Your task to perform on an android device: Open calendar and show me the second week of next month Image 0: 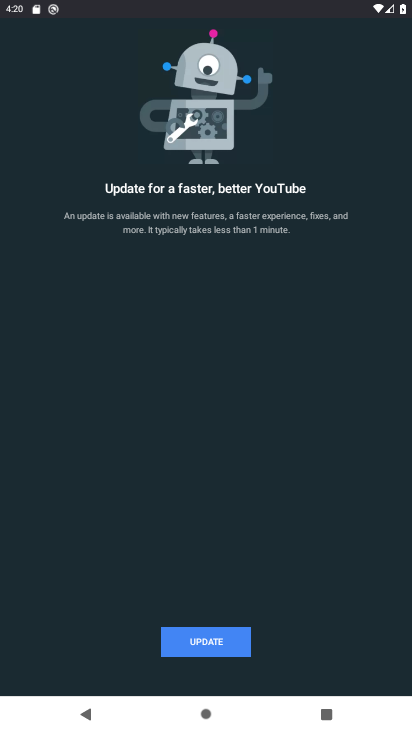
Step 0: press home button
Your task to perform on an android device: Open calendar and show me the second week of next month Image 1: 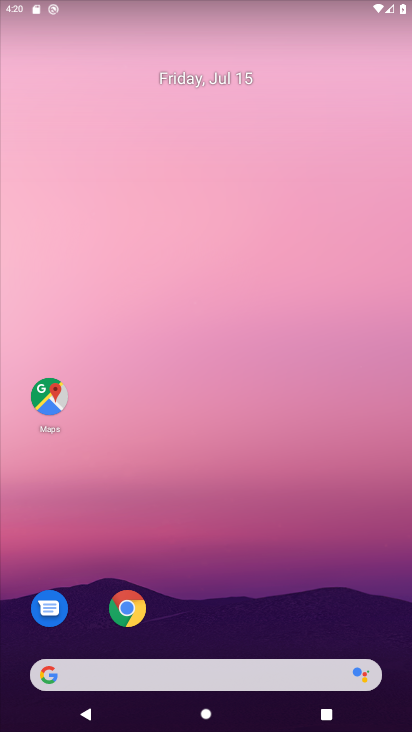
Step 1: drag from (225, 607) to (178, 132)
Your task to perform on an android device: Open calendar and show me the second week of next month Image 2: 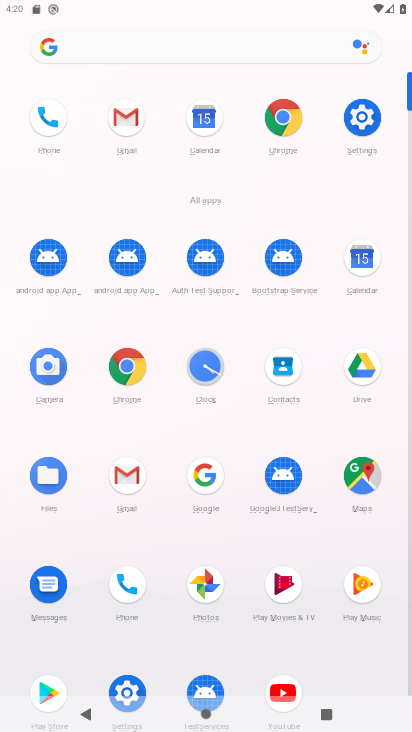
Step 2: click (361, 258)
Your task to perform on an android device: Open calendar and show me the second week of next month Image 3: 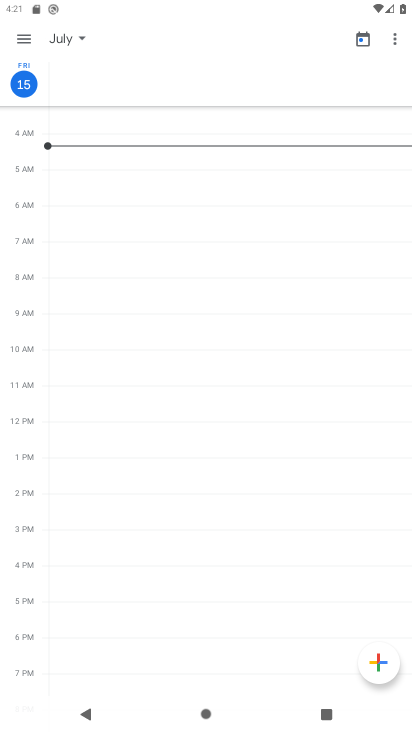
Step 3: click (27, 35)
Your task to perform on an android device: Open calendar and show me the second week of next month Image 4: 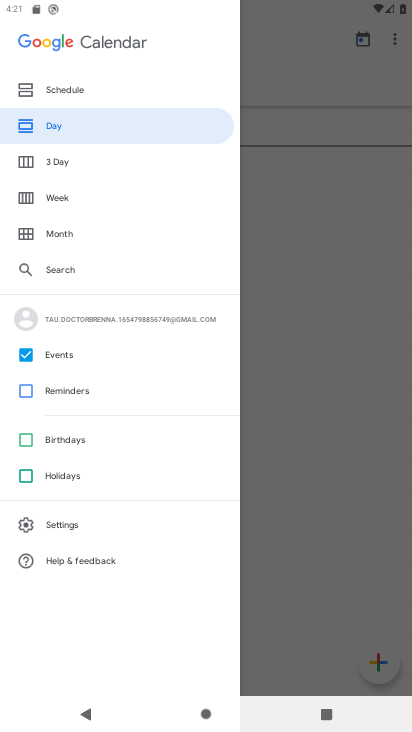
Step 4: click (37, 390)
Your task to perform on an android device: Open calendar and show me the second week of next month Image 5: 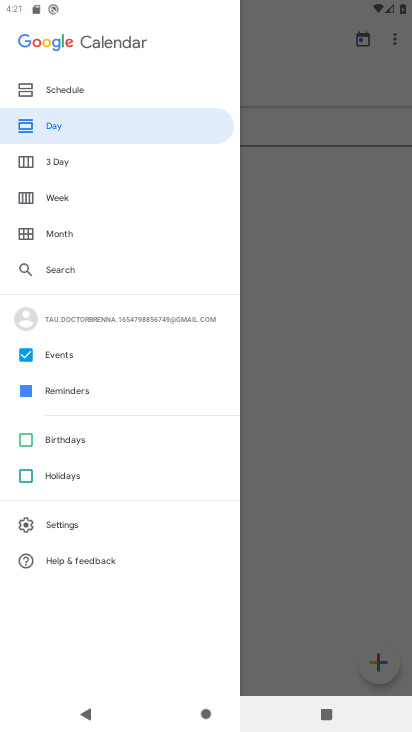
Step 5: click (39, 437)
Your task to perform on an android device: Open calendar and show me the second week of next month Image 6: 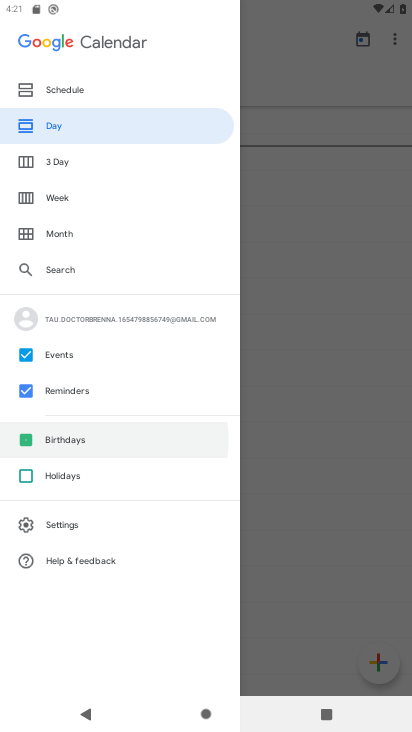
Step 6: click (39, 482)
Your task to perform on an android device: Open calendar and show me the second week of next month Image 7: 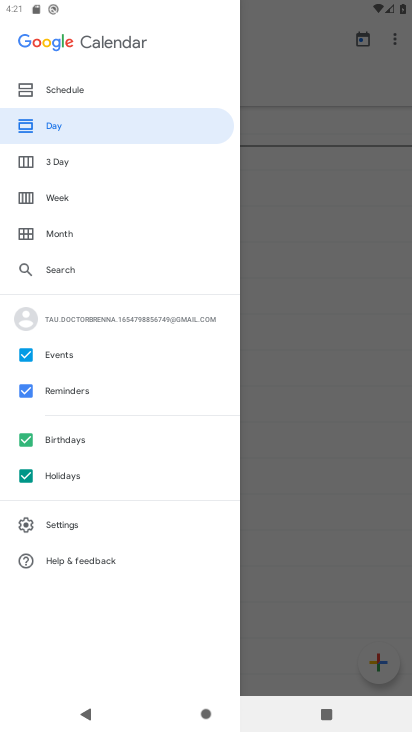
Step 7: click (52, 194)
Your task to perform on an android device: Open calendar and show me the second week of next month Image 8: 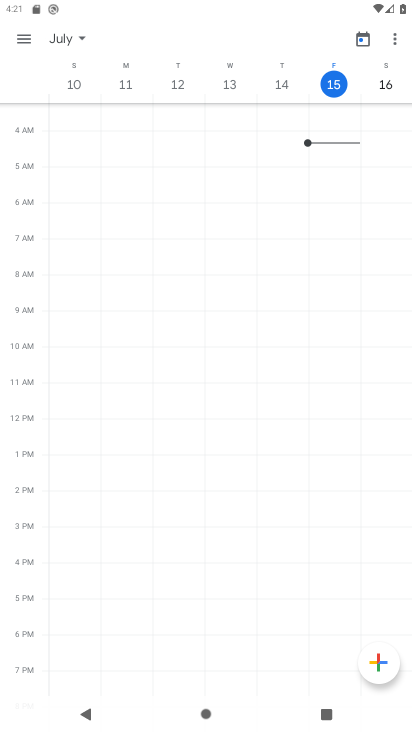
Step 8: click (74, 42)
Your task to perform on an android device: Open calendar and show me the second week of next month Image 9: 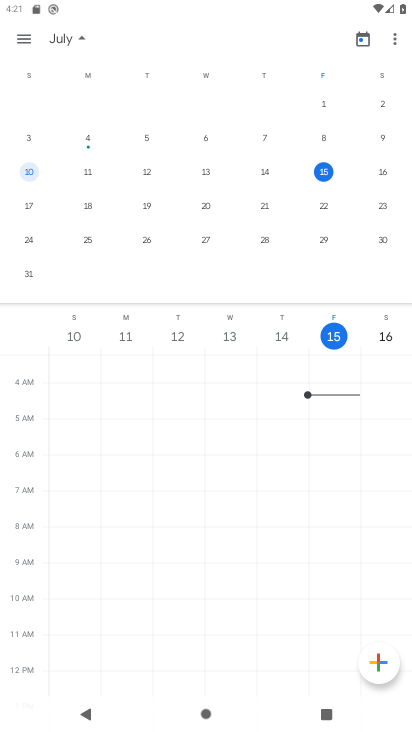
Step 9: drag from (356, 232) to (4, 188)
Your task to perform on an android device: Open calendar and show me the second week of next month Image 10: 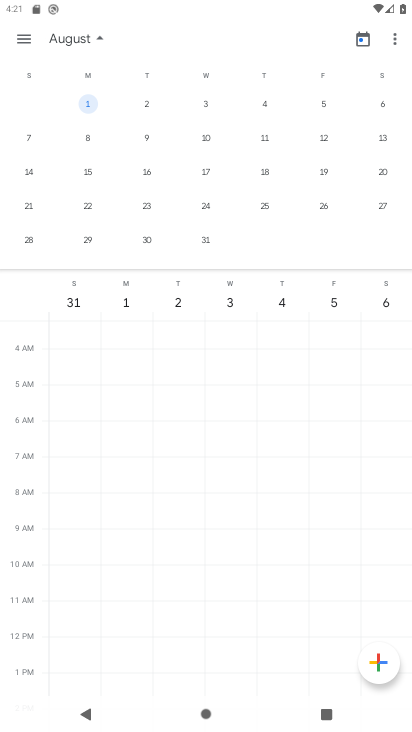
Step 10: click (27, 35)
Your task to perform on an android device: Open calendar and show me the second week of next month Image 11: 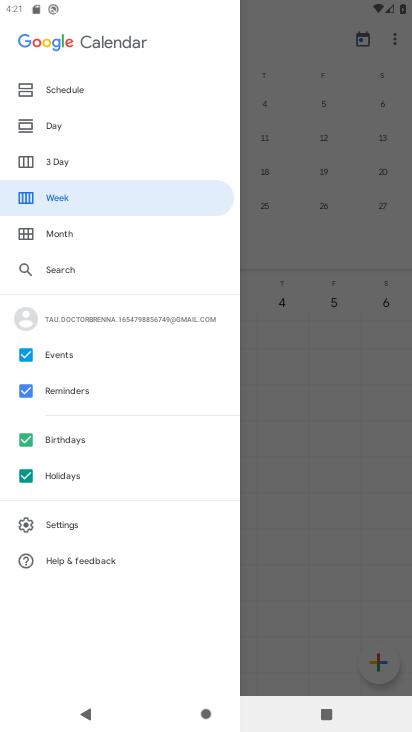
Step 11: click (62, 201)
Your task to perform on an android device: Open calendar and show me the second week of next month Image 12: 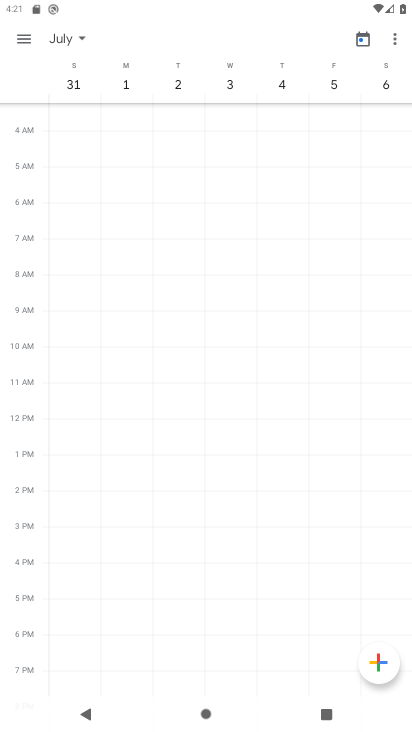
Step 12: task complete